Your task to perform on an android device: turn on sleep mode Image 0: 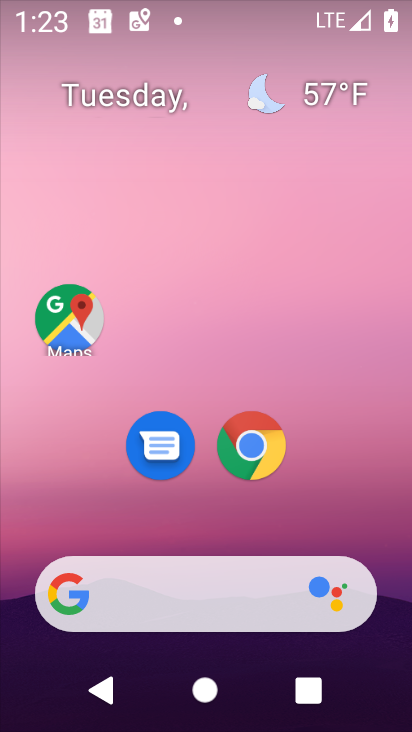
Step 0: drag from (381, 507) to (371, 197)
Your task to perform on an android device: turn on sleep mode Image 1: 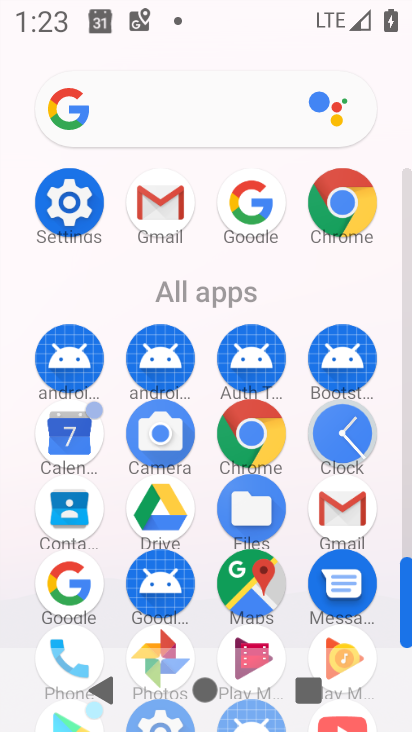
Step 1: click (76, 204)
Your task to perform on an android device: turn on sleep mode Image 2: 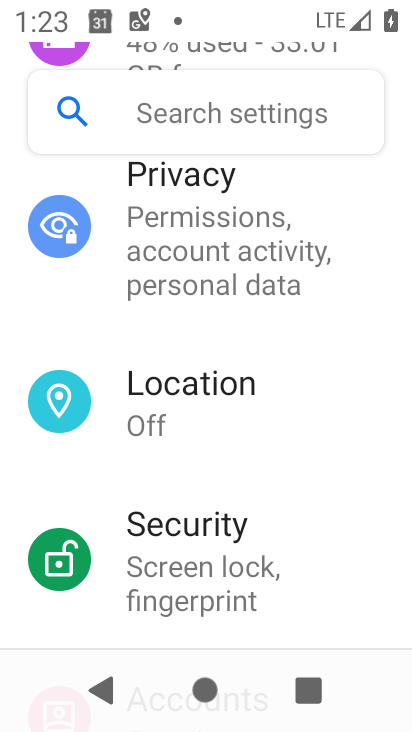
Step 2: drag from (366, 275) to (357, 384)
Your task to perform on an android device: turn on sleep mode Image 3: 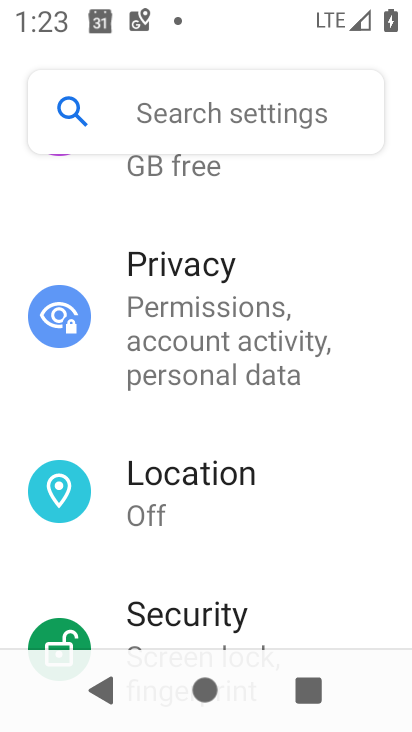
Step 3: drag from (346, 242) to (346, 379)
Your task to perform on an android device: turn on sleep mode Image 4: 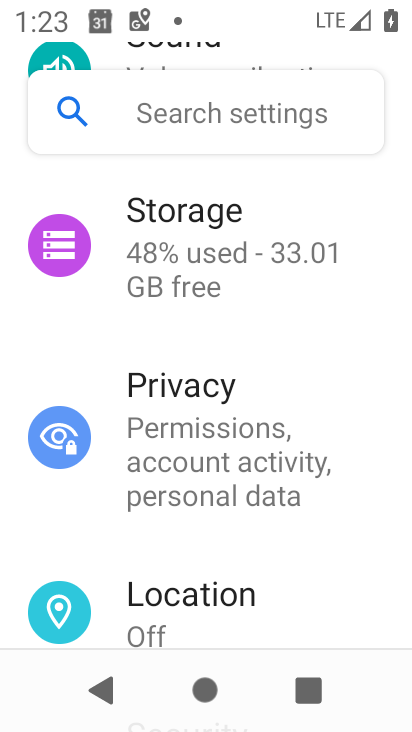
Step 4: drag from (354, 214) to (349, 341)
Your task to perform on an android device: turn on sleep mode Image 5: 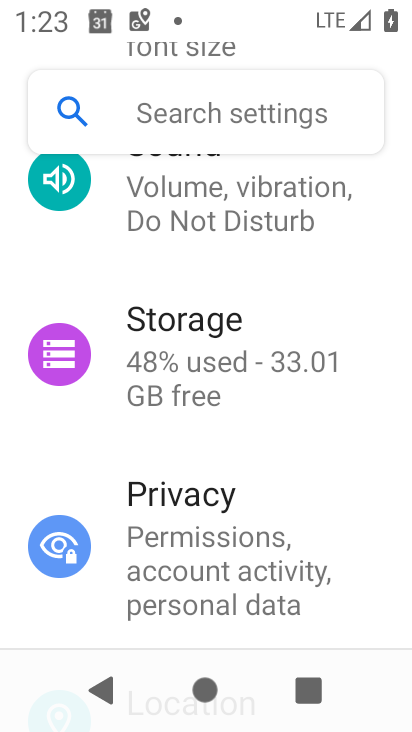
Step 5: drag from (362, 227) to (368, 361)
Your task to perform on an android device: turn on sleep mode Image 6: 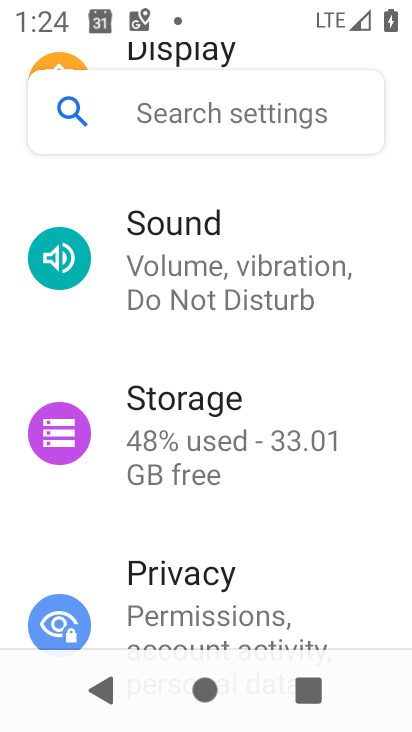
Step 6: drag from (364, 203) to (353, 350)
Your task to perform on an android device: turn on sleep mode Image 7: 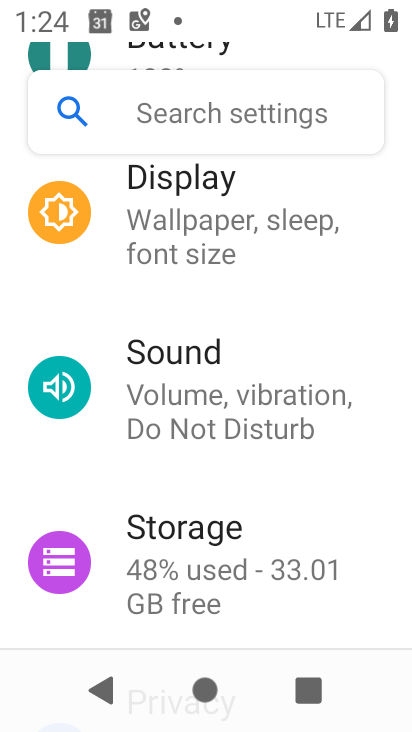
Step 7: drag from (367, 191) to (374, 334)
Your task to perform on an android device: turn on sleep mode Image 8: 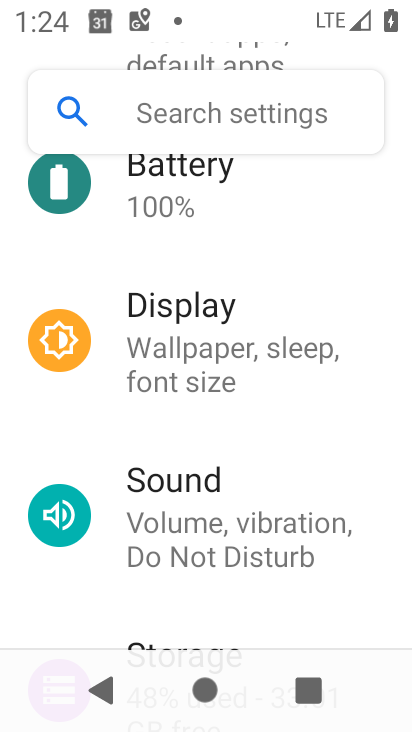
Step 8: drag from (362, 200) to (363, 330)
Your task to perform on an android device: turn on sleep mode Image 9: 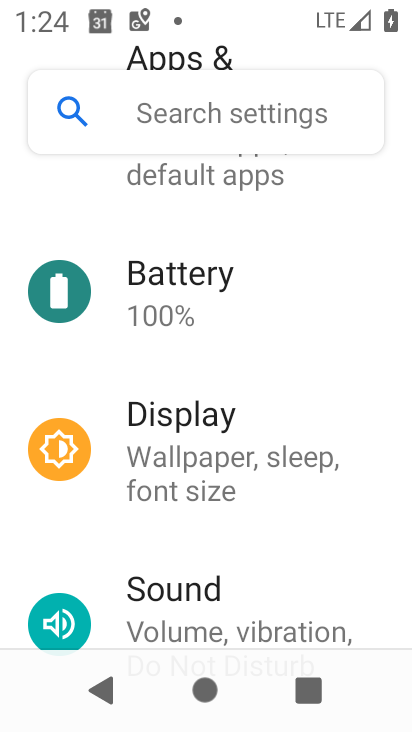
Step 9: drag from (344, 174) to (343, 301)
Your task to perform on an android device: turn on sleep mode Image 10: 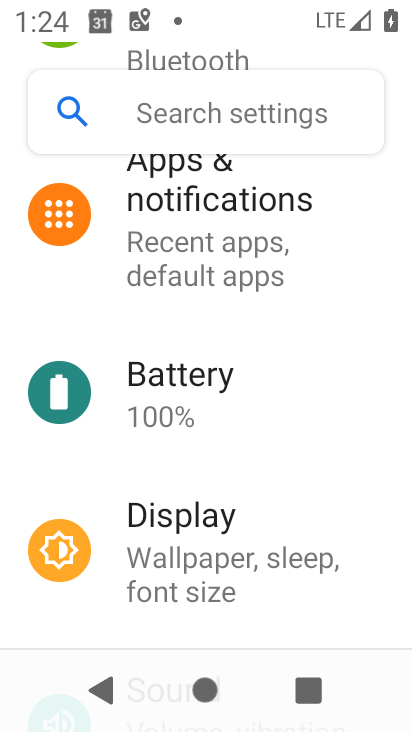
Step 10: drag from (311, 393) to (323, 203)
Your task to perform on an android device: turn on sleep mode Image 11: 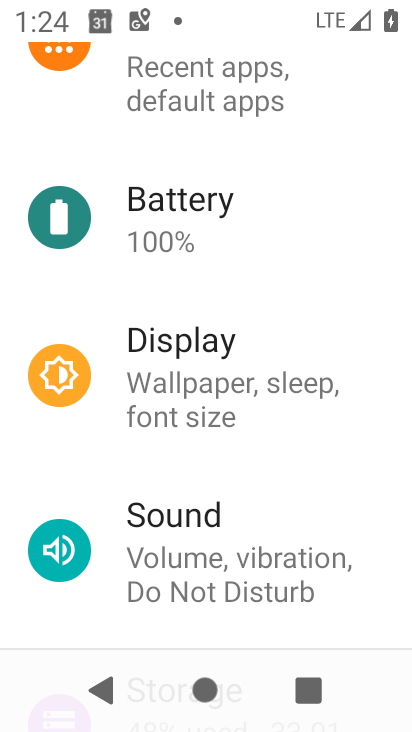
Step 11: click (264, 391)
Your task to perform on an android device: turn on sleep mode Image 12: 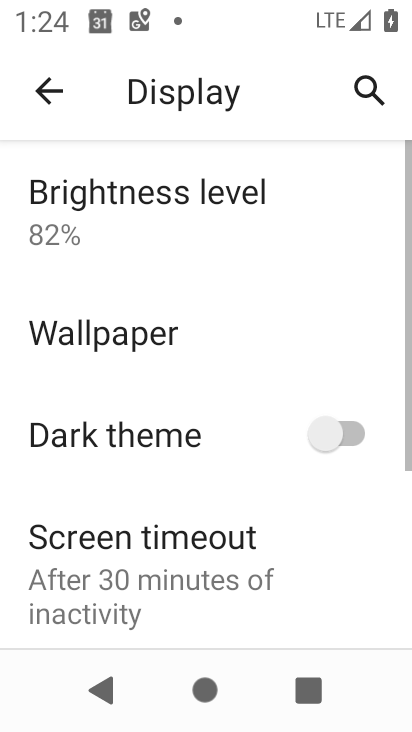
Step 12: drag from (262, 442) to (277, 271)
Your task to perform on an android device: turn on sleep mode Image 13: 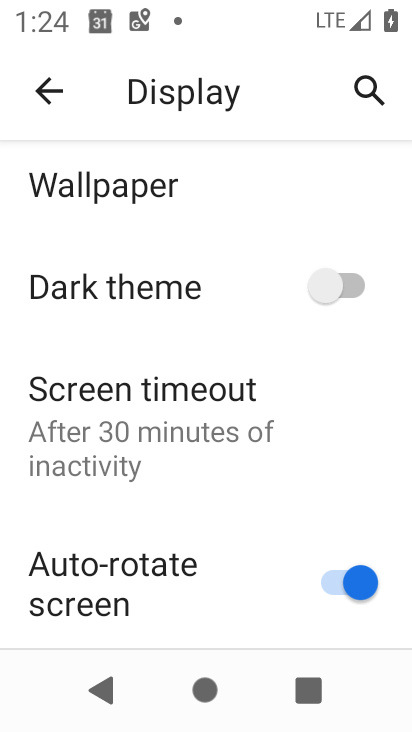
Step 13: drag from (276, 486) to (290, 301)
Your task to perform on an android device: turn on sleep mode Image 14: 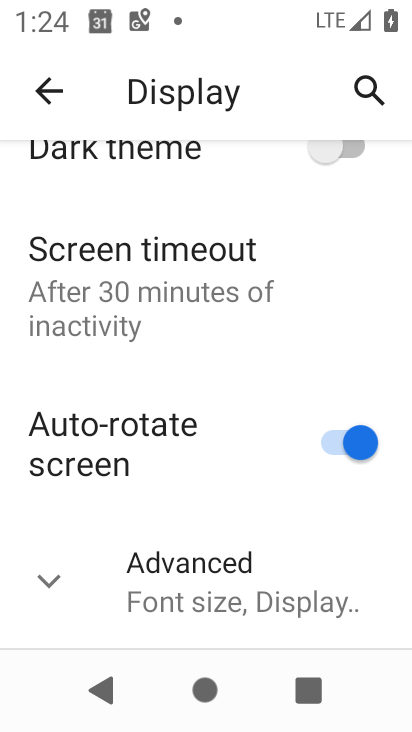
Step 14: click (224, 586)
Your task to perform on an android device: turn on sleep mode Image 15: 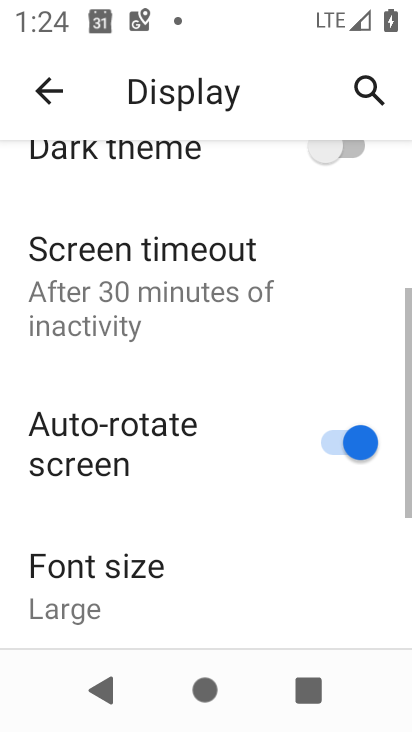
Step 15: task complete